Your task to perform on an android device: change text size in settings app Image 0: 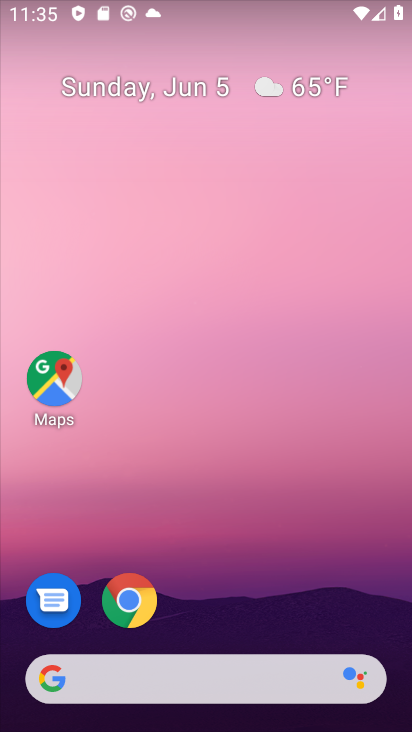
Step 0: drag from (401, 676) to (362, 139)
Your task to perform on an android device: change text size in settings app Image 1: 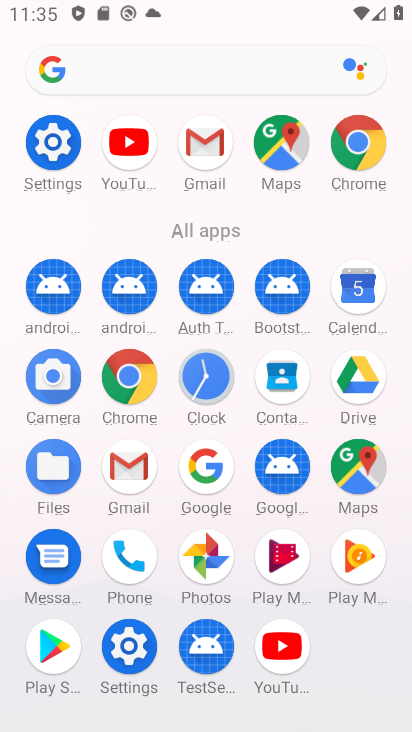
Step 1: click (61, 149)
Your task to perform on an android device: change text size in settings app Image 2: 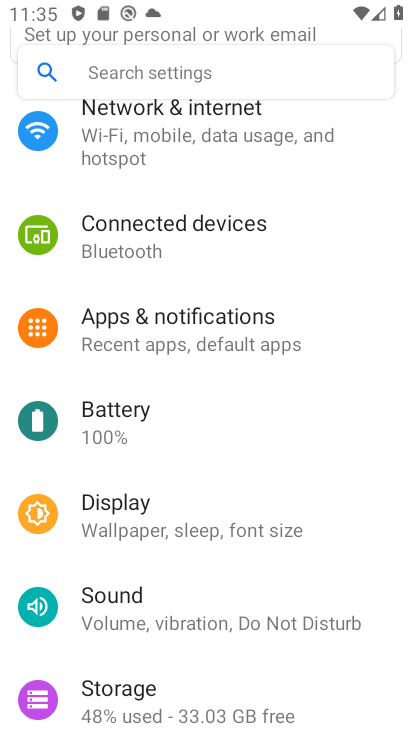
Step 2: click (121, 514)
Your task to perform on an android device: change text size in settings app Image 3: 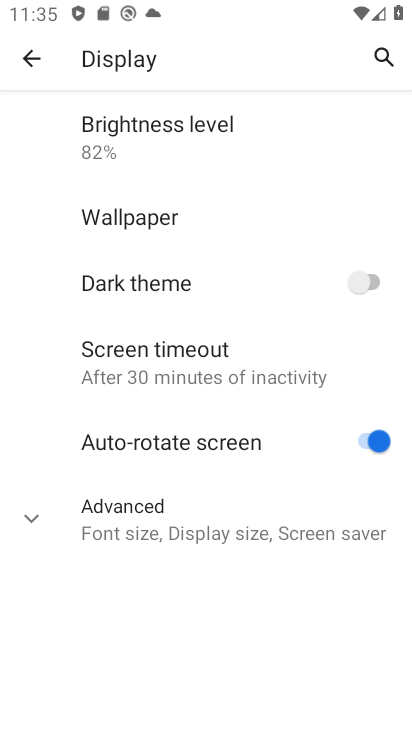
Step 3: click (52, 522)
Your task to perform on an android device: change text size in settings app Image 4: 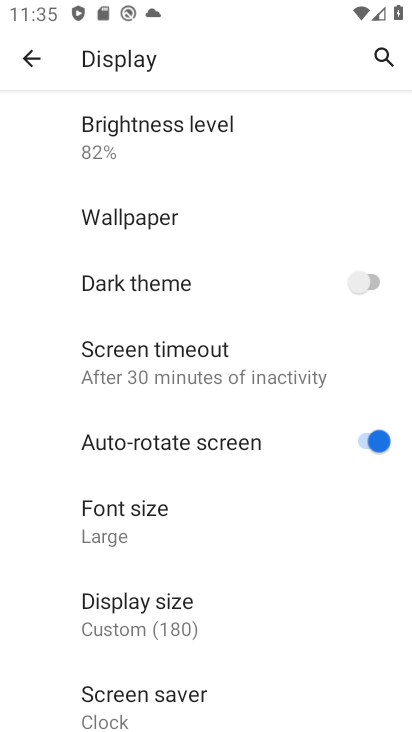
Step 4: click (137, 518)
Your task to perform on an android device: change text size in settings app Image 5: 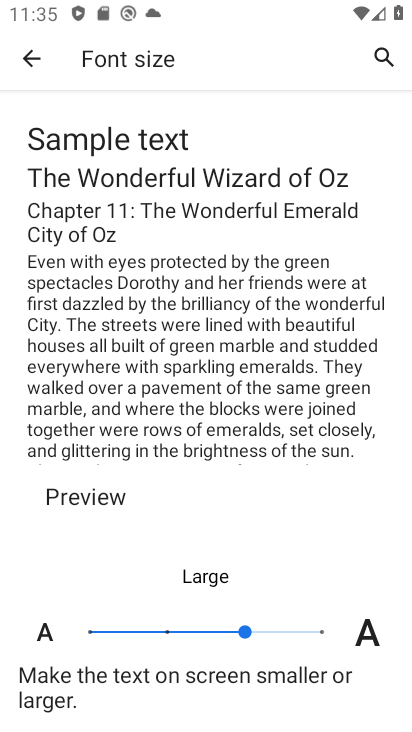
Step 5: click (170, 632)
Your task to perform on an android device: change text size in settings app Image 6: 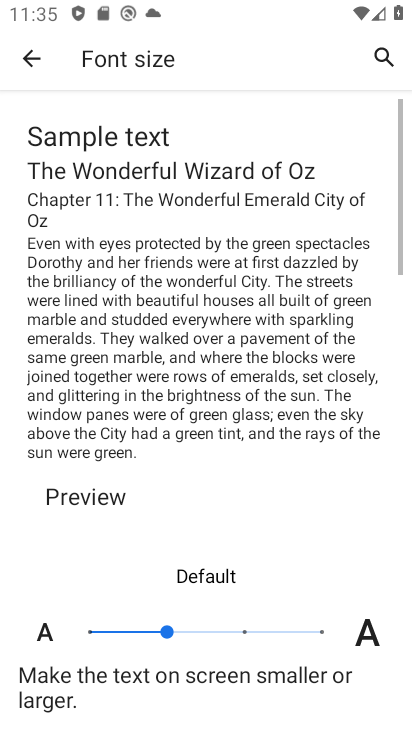
Step 6: task complete